Your task to perform on an android device: Do I have any events tomorrow? Image 0: 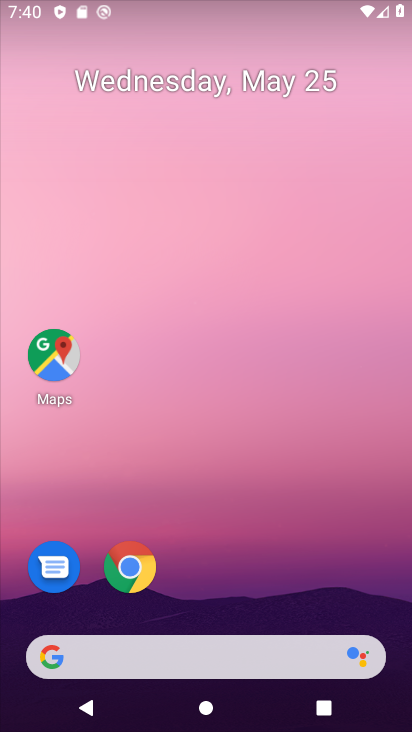
Step 0: click (121, 550)
Your task to perform on an android device: Do I have any events tomorrow? Image 1: 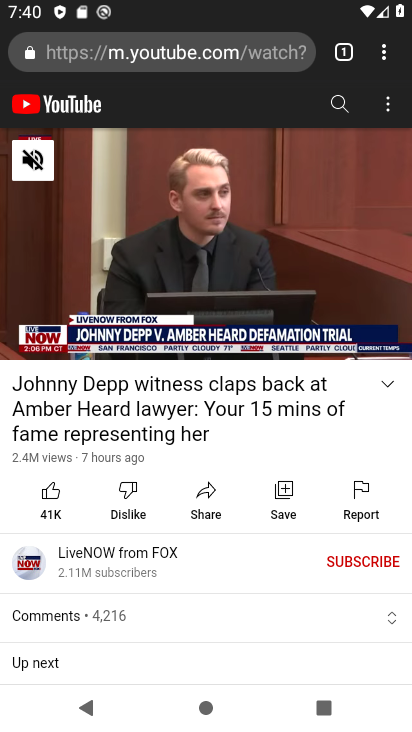
Step 1: press home button
Your task to perform on an android device: Do I have any events tomorrow? Image 2: 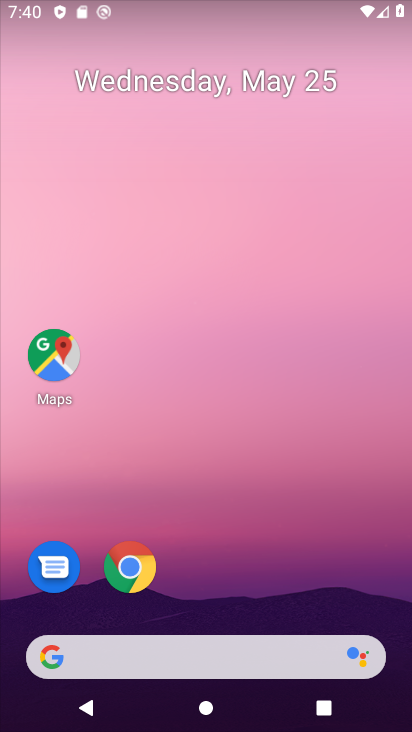
Step 2: drag from (255, 609) to (278, 210)
Your task to perform on an android device: Do I have any events tomorrow? Image 3: 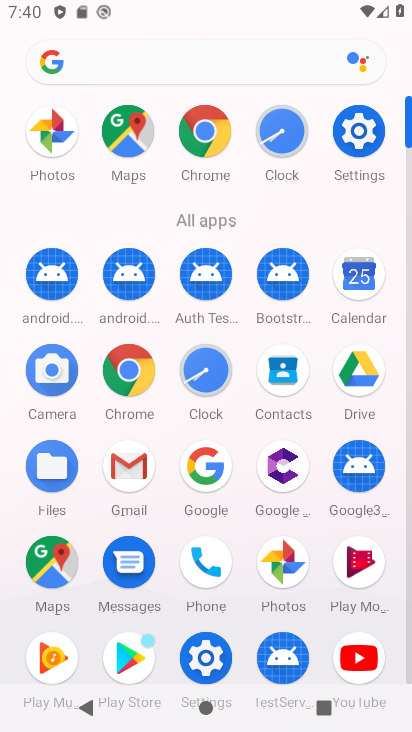
Step 3: click (366, 261)
Your task to perform on an android device: Do I have any events tomorrow? Image 4: 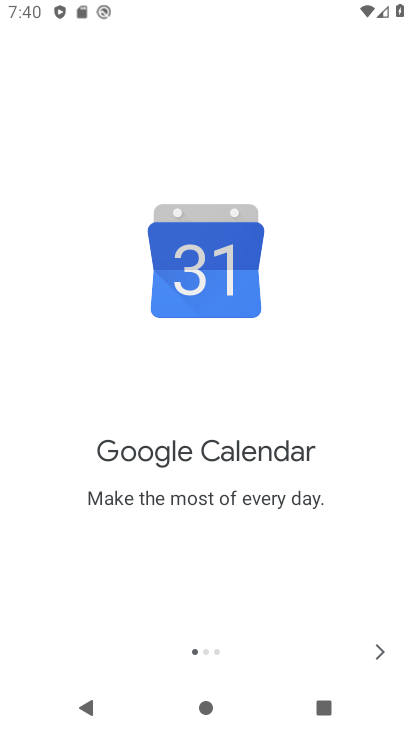
Step 4: click (381, 650)
Your task to perform on an android device: Do I have any events tomorrow? Image 5: 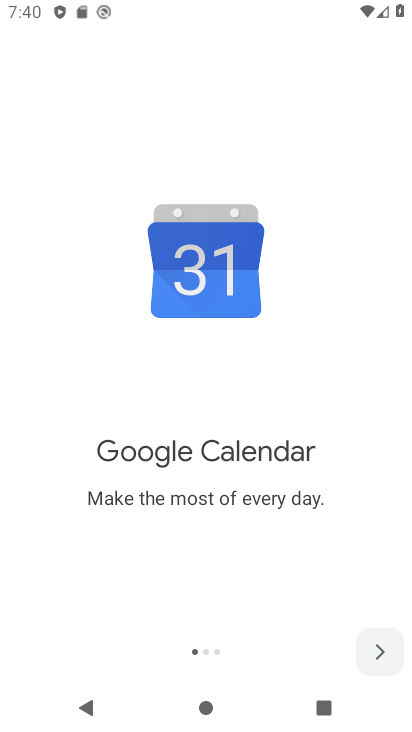
Step 5: click (381, 650)
Your task to perform on an android device: Do I have any events tomorrow? Image 6: 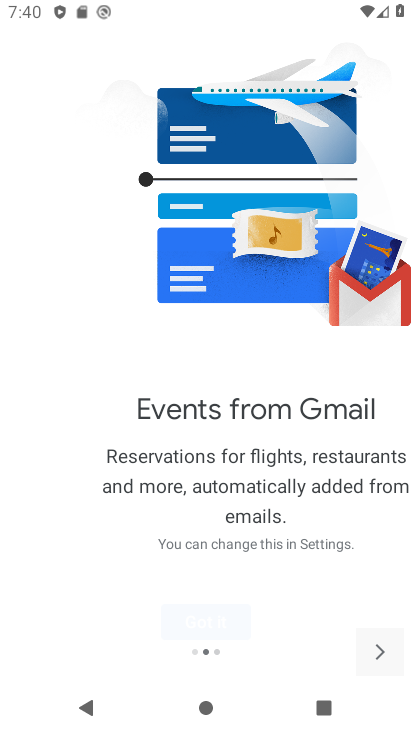
Step 6: click (381, 650)
Your task to perform on an android device: Do I have any events tomorrow? Image 7: 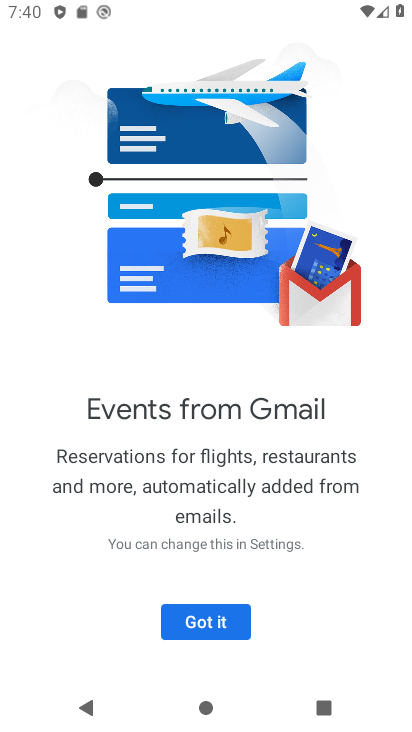
Step 7: click (228, 622)
Your task to perform on an android device: Do I have any events tomorrow? Image 8: 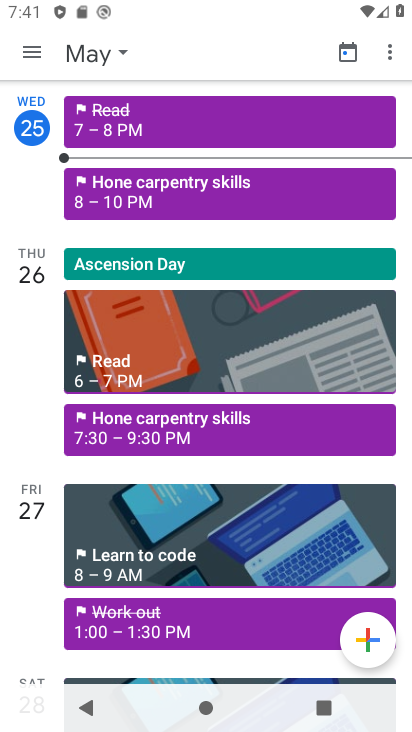
Step 8: task complete